Your task to perform on an android device: Open Google Chrome Image 0: 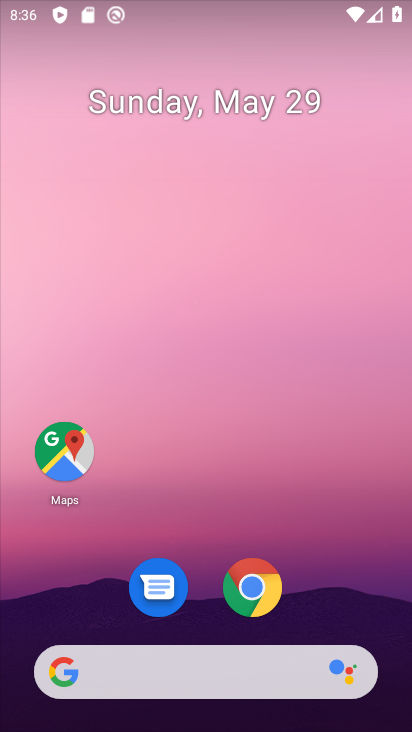
Step 0: click (163, 664)
Your task to perform on an android device: Open Google Chrome Image 1: 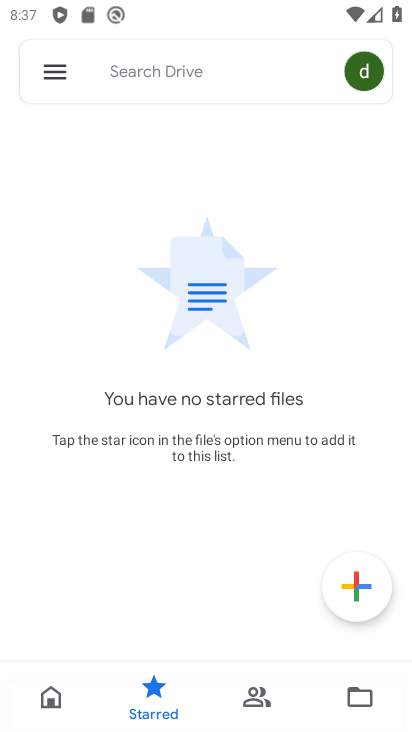
Step 1: press home button
Your task to perform on an android device: Open Google Chrome Image 2: 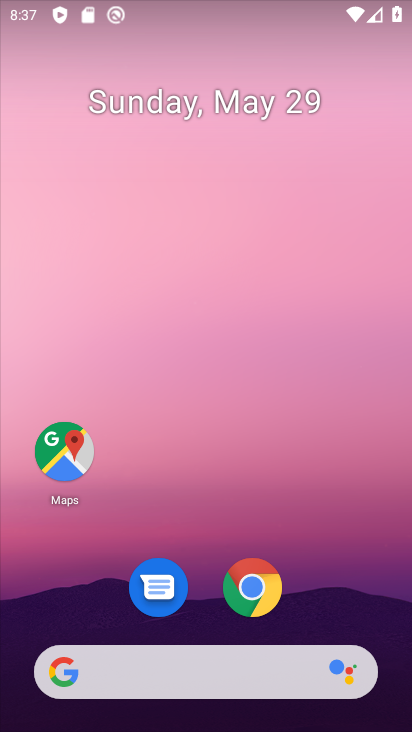
Step 2: click (261, 594)
Your task to perform on an android device: Open Google Chrome Image 3: 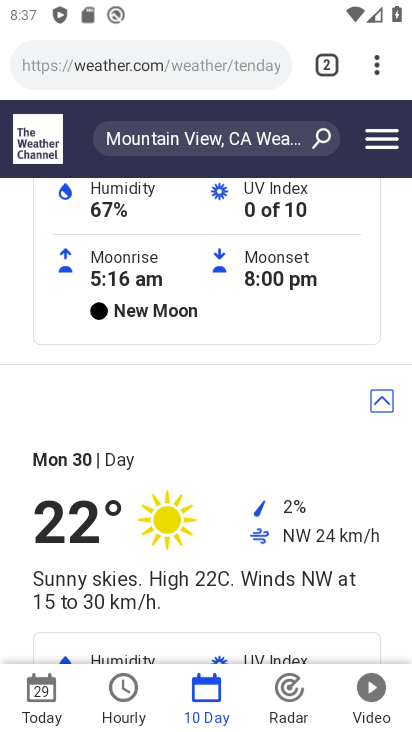
Step 3: click (261, 594)
Your task to perform on an android device: Open Google Chrome Image 4: 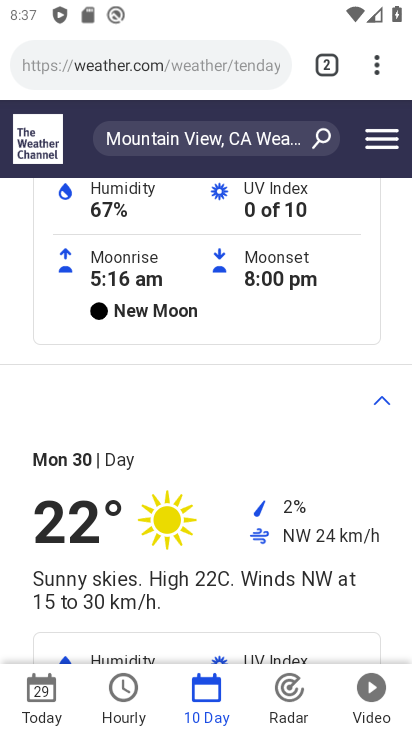
Step 4: task complete